Your task to perform on an android device: Open calendar and show me the third week of next month Image 0: 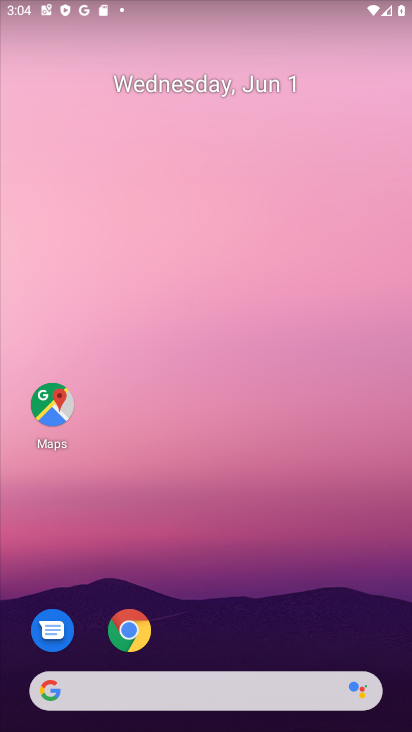
Step 0: drag from (270, 608) to (270, 158)
Your task to perform on an android device: Open calendar and show me the third week of next month Image 1: 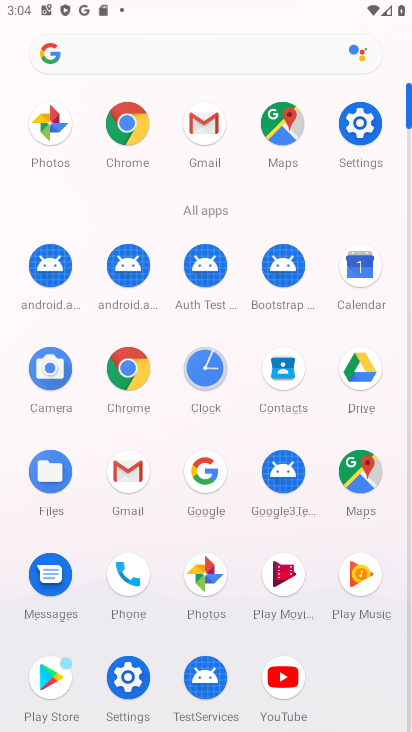
Step 1: click (354, 272)
Your task to perform on an android device: Open calendar and show me the third week of next month Image 2: 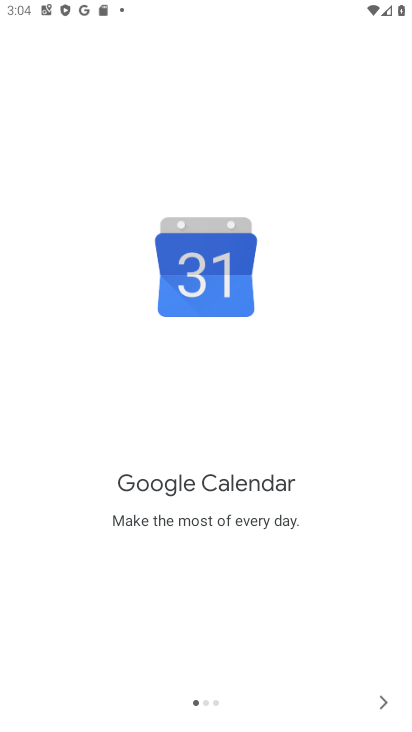
Step 2: click (389, 701)
Your task to perform on an android device: Open calendar and show me the third week of next month Image 3: 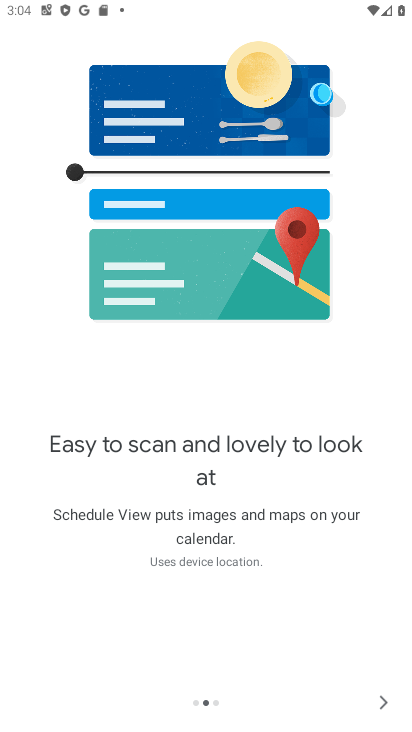
Step 3: click (394, 693)
Your task to perform on an android device: Open calendar and show me the third week of next month Image 4: 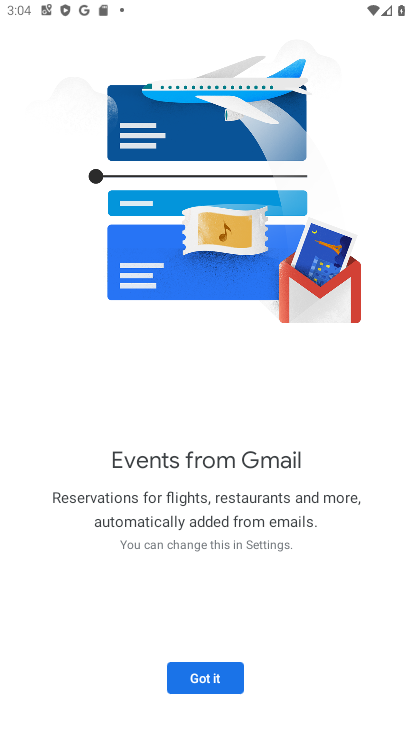
Step 4: click (222, 676)
Your task to perform on an android device: Open calendar and show me the third week of next month Image 5: 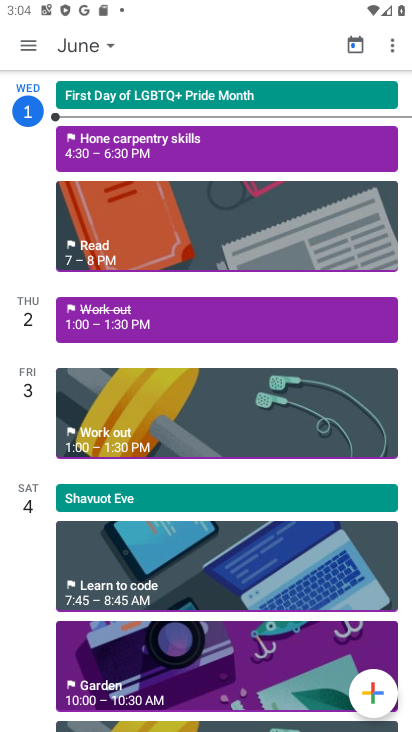
Step 5: click (90, 41)
Your task to perform on an android device: Open calendar and show me the third week of next month Image 6: 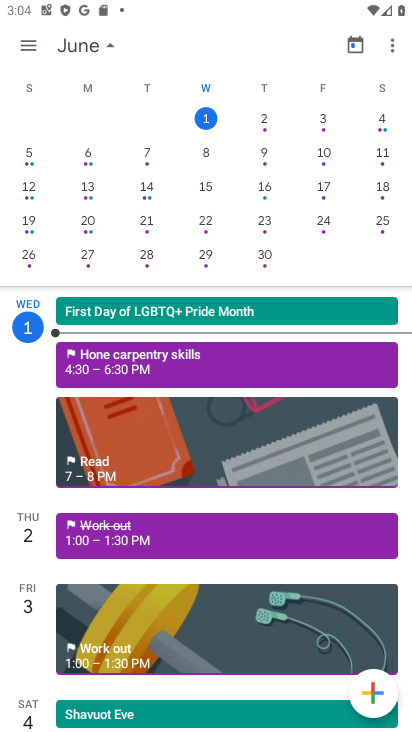
Step 6: drag from (358, 200) to (5, 170)
Your task to perform on an android device: Open calendar and show me the third week of next month Image 7: 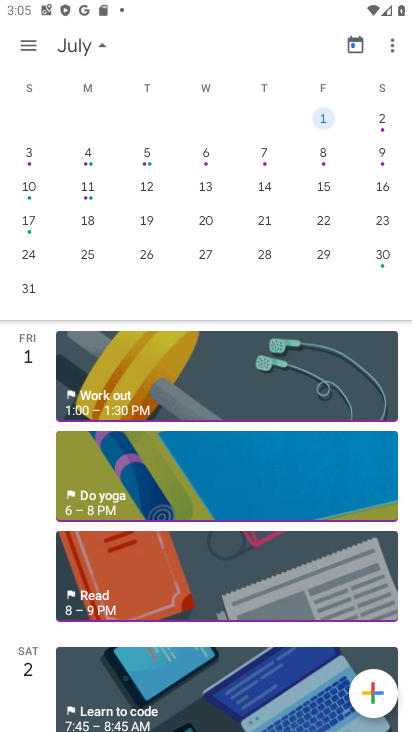
Step 7: click (88, 192)
Your task to perform on an android device: Open calendar and show me the third week of next month Image 8: 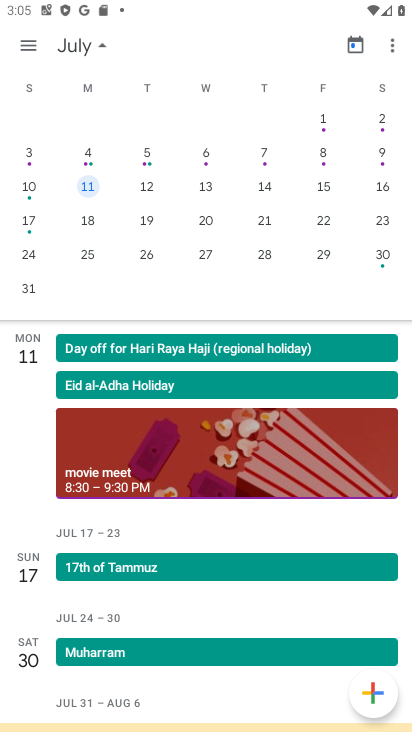
Step 8: task complete